Your task to perform on an android device: open app "Expedia: Hotels, Flights & Car" (install if not already installed) and enter user name: "crusader@outlook.com" and password: "Toryize" Image 0: 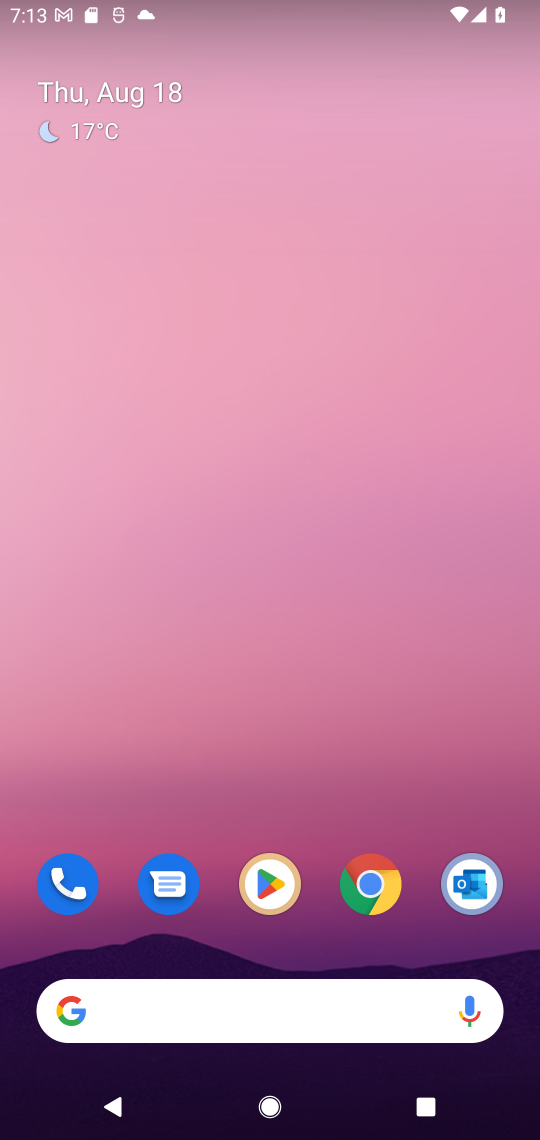
Step 0: drag from (271, 1010) to (403, 93)
Your task to perform on an android device: open app "Expedia: Hotels, Flights & Car" (install if not already installed) and enter user name: "crusader@outlook.com" and password: "Toryize" Image 1: 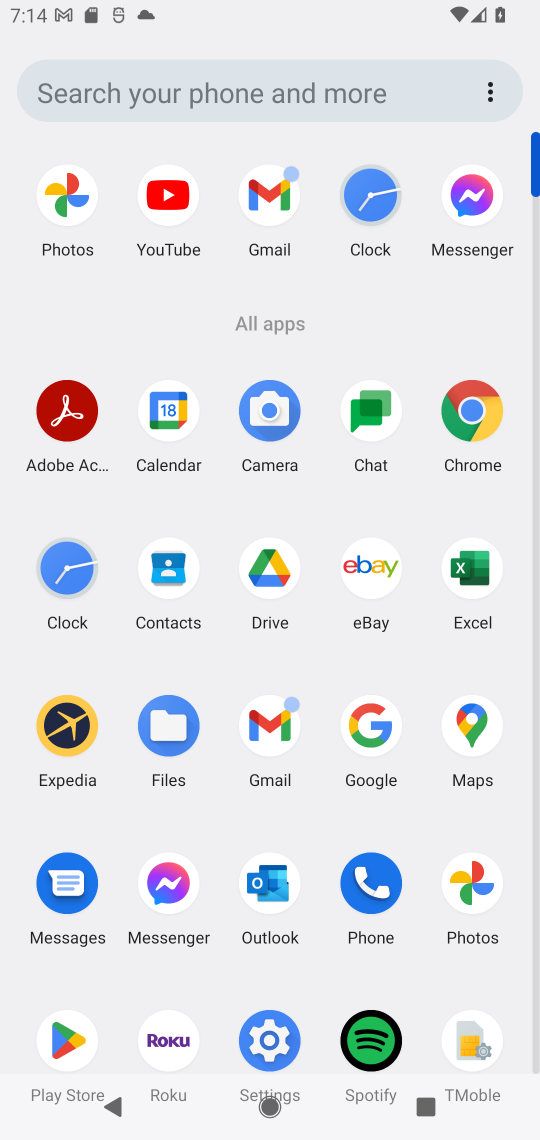
Step 1: click (77, 1043)
Your task to perform on an android device: open app "Expedia: Hotels, Flights & Car" (install if not already installed) and enter user name: "crusader@outlook.com" and password: "Toryize" Image 2: 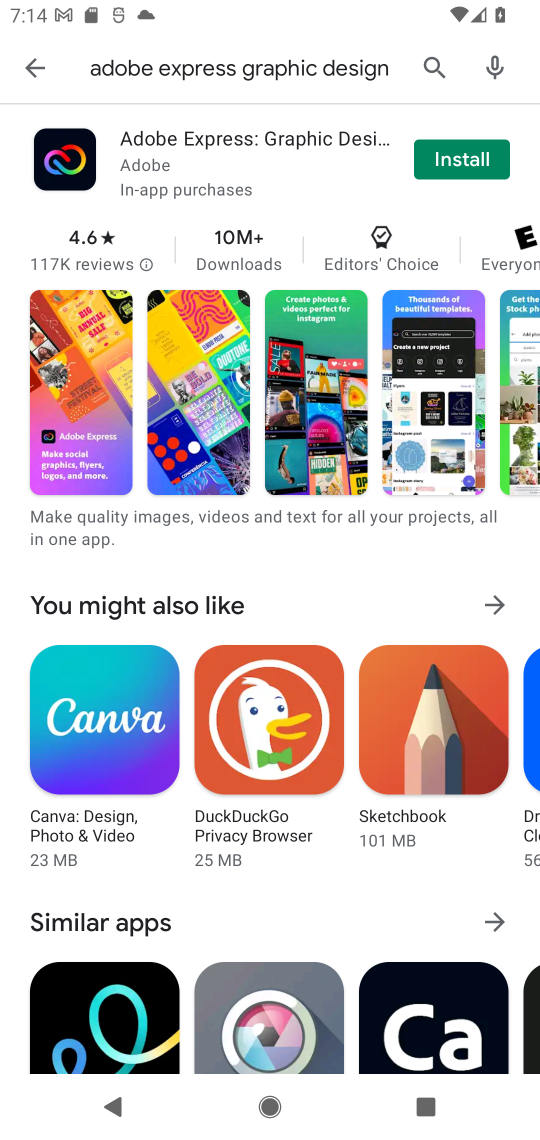
Step 2: press back button
Your task to perform on an android device: open app "Expedia: Hotels, Flights & Car" (install if not already installed) and enter user name: "crusader@outlook.com" and password: "Toryize" Image 3: 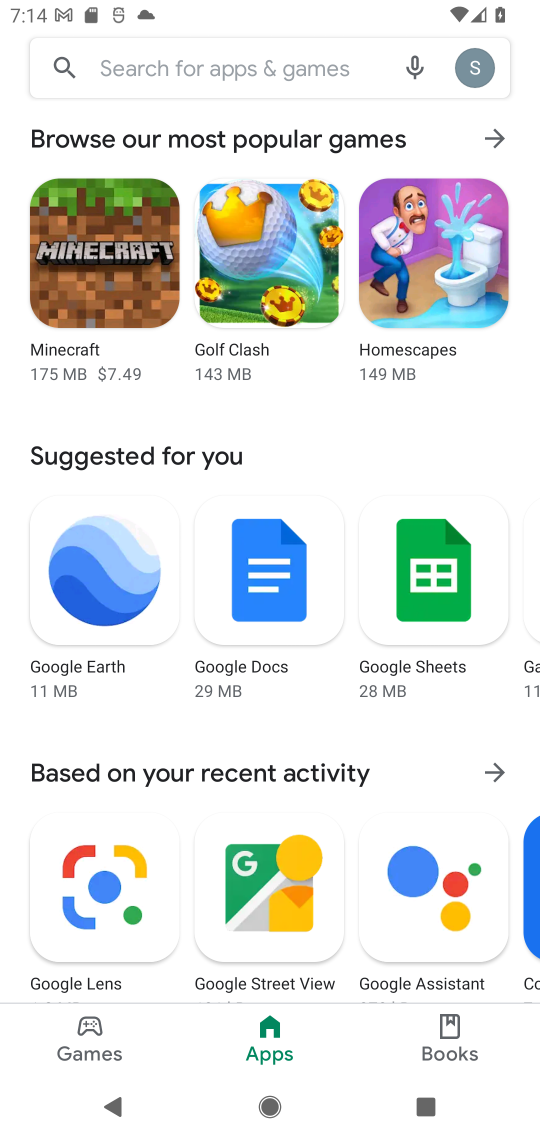
Step 3: click (187, 75)
Your task to perform on an android device: open app "Expedia: Hotels, Flights & Car" (install if not already installed) and enter user name: "crusader@outlook.com" and password: "Toryize" Image 4: 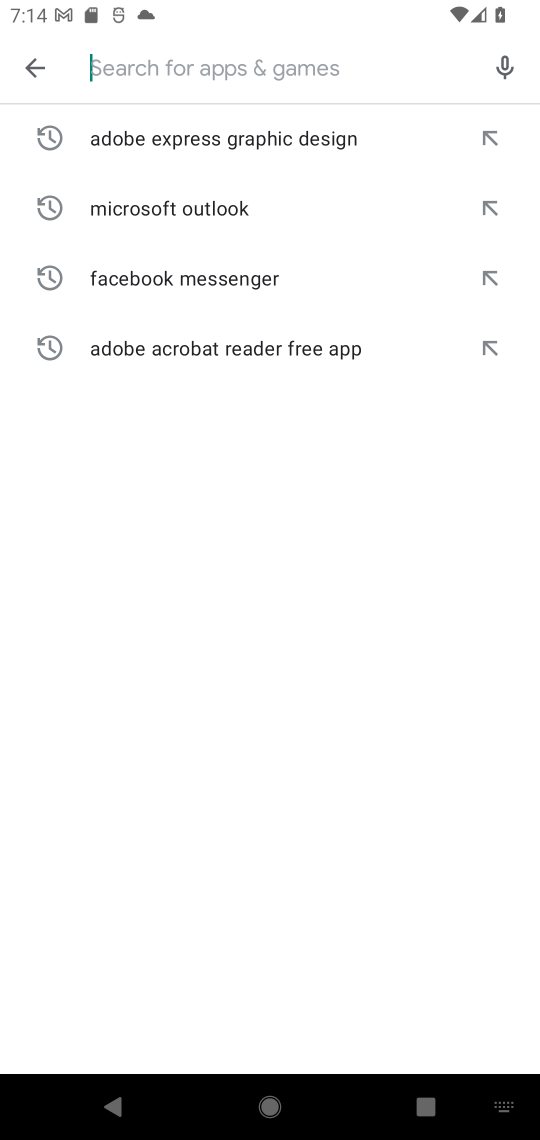
Step 4: type "Expedia: Hotels, Flights & Car"
Your task to perform on an android device: open app "Expedia: Hotels, Flights & Car" (install if not already installed) and enter user name: "crusader@outlook.com" and password: "Toryize" Image 5: 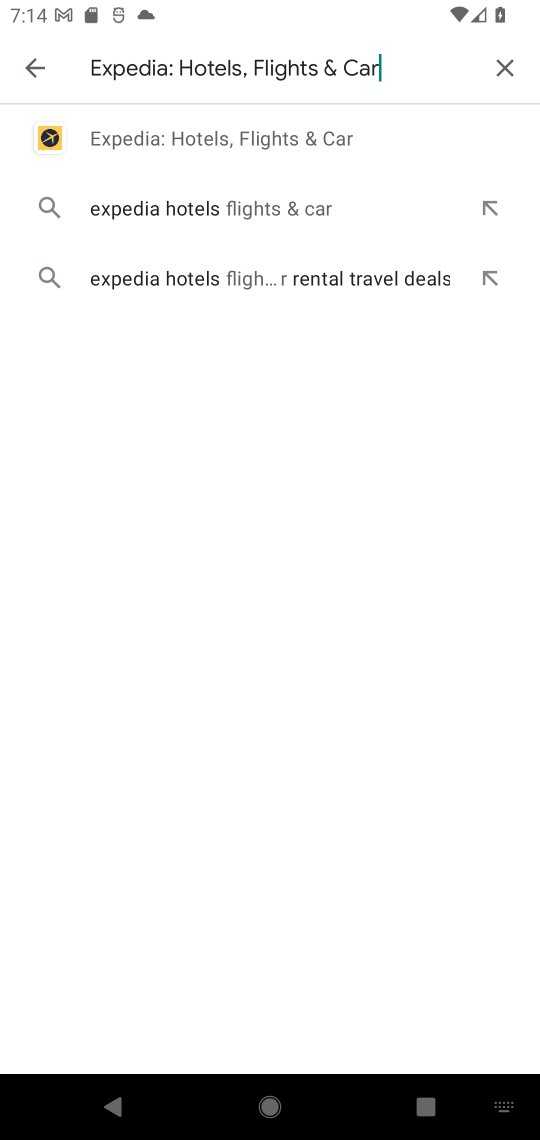
Step 5: click (283, 143)
Your task to perform on an android device: open app "Expedia: Hotels, Flights & Car" (install if not already installed) and enter user name: "crusader@outlook.com" and password: "Toryize" Image 6: 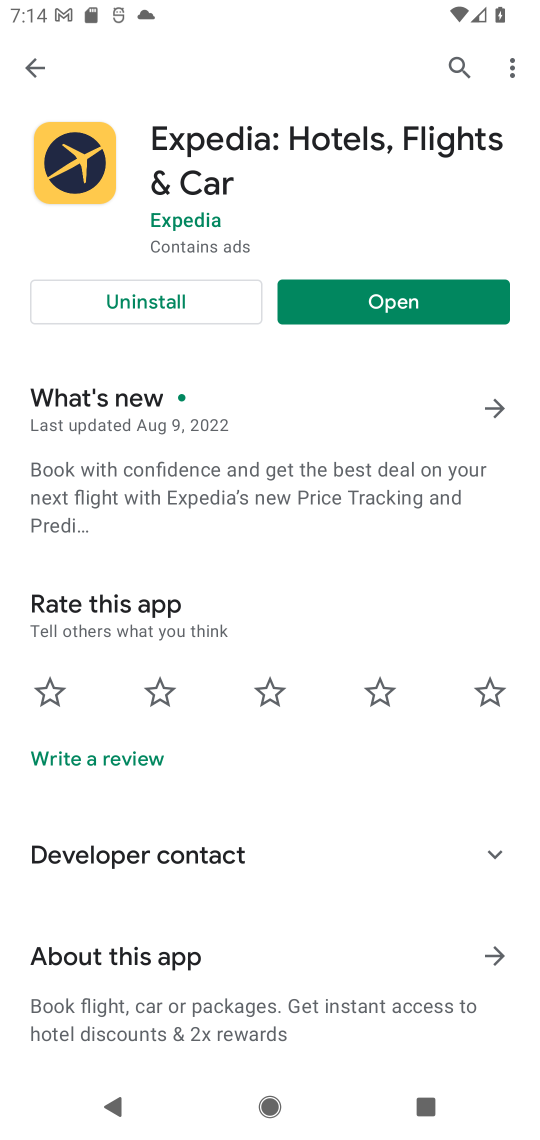
Step 6: click (430, 301)
Your task to perform on an android device: open app "Expedia: Hotels, Flights & Car" (install if not already installed) and enter user name: "crusader@outlook.com" and password: "Toryize" Image 7: 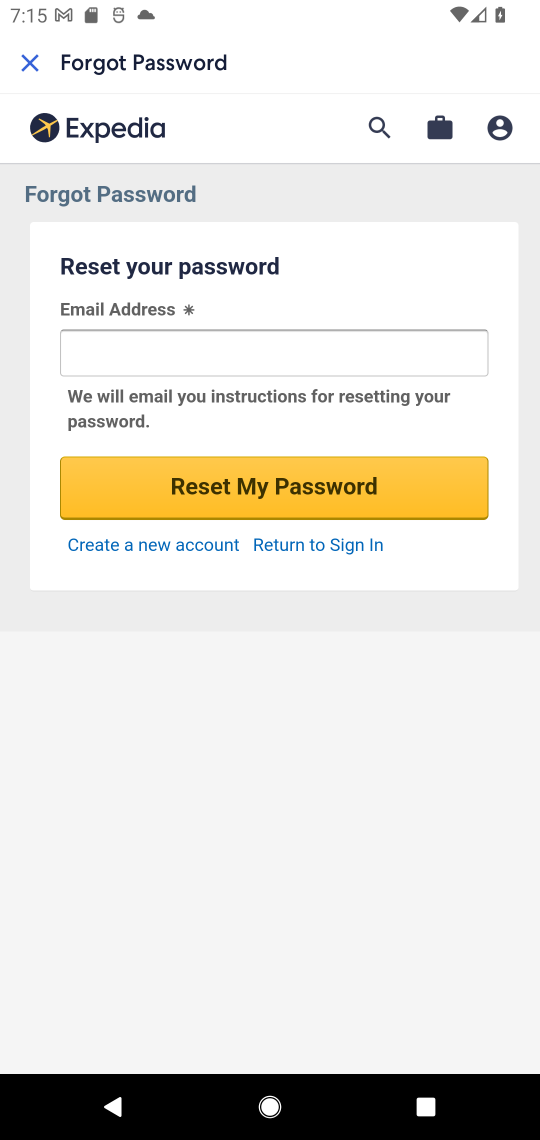
Step 7: click (331, 545)
Your task to perform on an android device: open app "Expedia: Hotels, Flights & Car" (install if not already installed) and enter user name: "crusader@outlook.com" and password: "Toryize" Image 8: 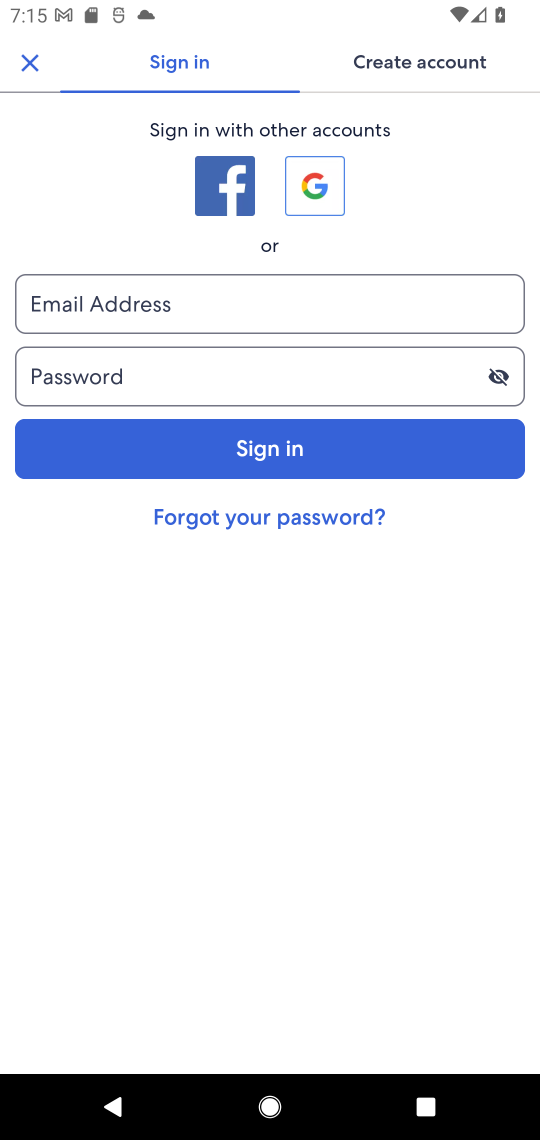
Step 8: click (241, 293)
Your task to perform on an android device: open app "Expedia: Hotels, Flights & Car" (install if not already installed) and enter user name: "crusader@outlook.com" and password: "Toryize" Image 9: 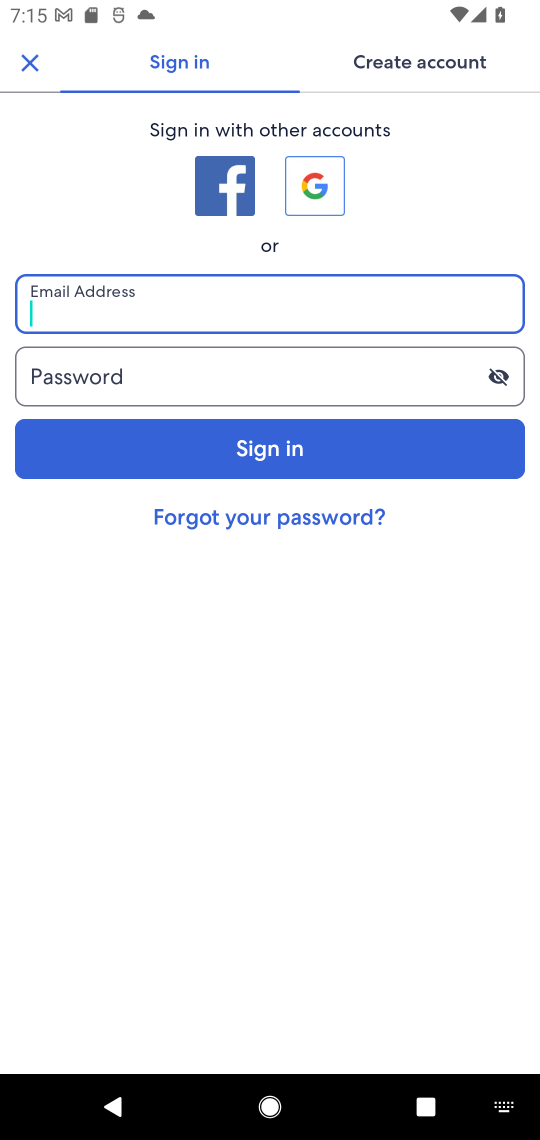
Step 9: type "crusader@outlook.com"
Your task to perform on an android device: open app "Expedia: Hotels, Flights & Car" (install if not already installed) and enter user name: "crusader@outlook.com" and password: "Toryize" Image 10: 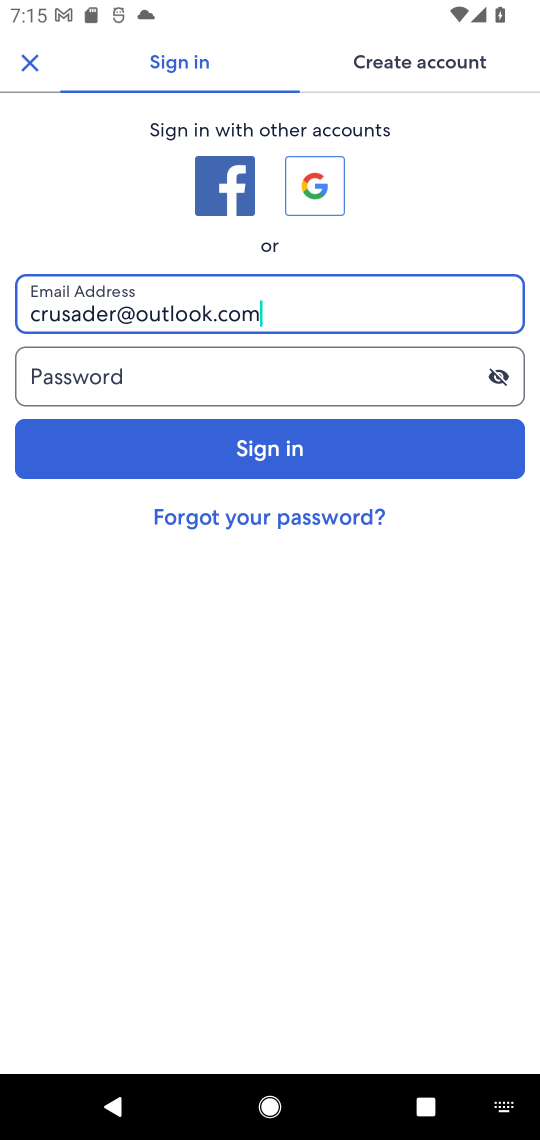
Step 10: click (317, 392)
Your task to perform on an android device: open app "Expedia: Hotels, Flights & Car" (install if not already installed) and enter user name: "crusader@outlook.com" and password: "Toryize" Image 11: 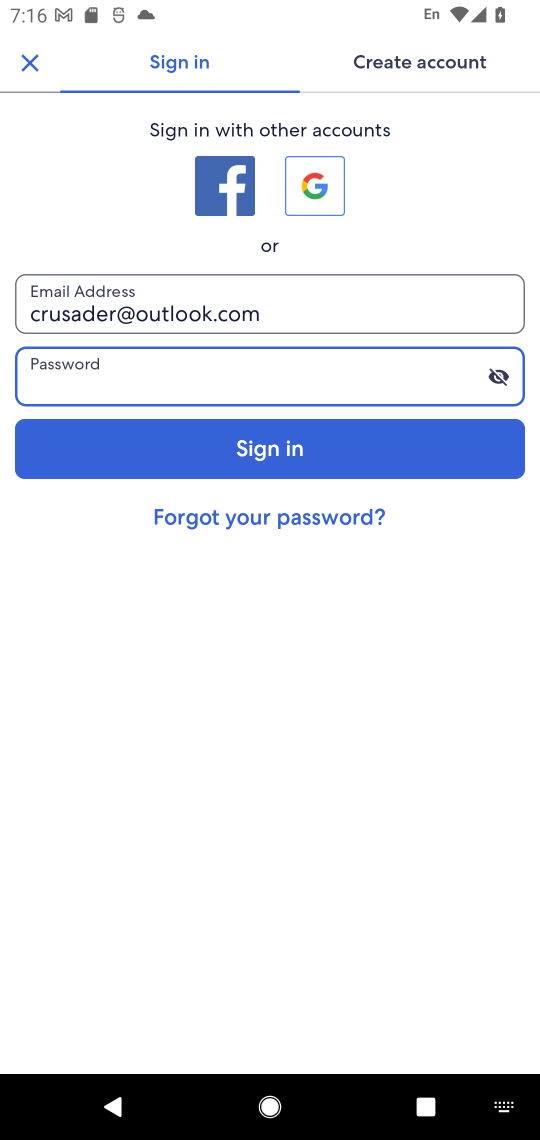
Step 11: type "Toryize"
Your task to perform on an android device: open app "Expedia: Hotels, Flights & Car" (install if not already installed) and enter user name: "crusader@outlook.com" and password: "Toryize" Image 12: 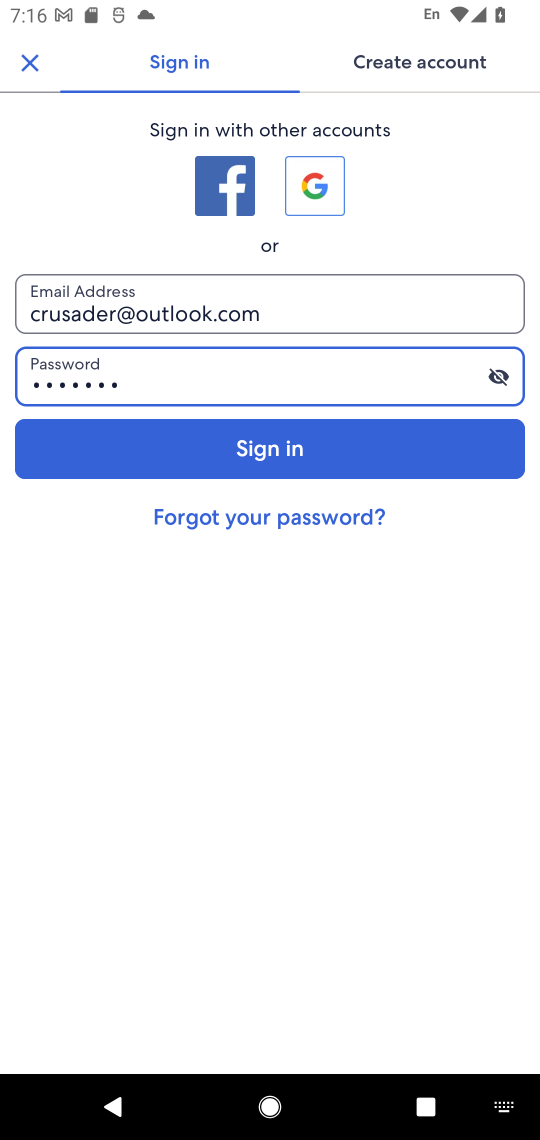
Step 12: task complete